Your task to perform on an android device: turn off smart reply in the gmail app Image 0: 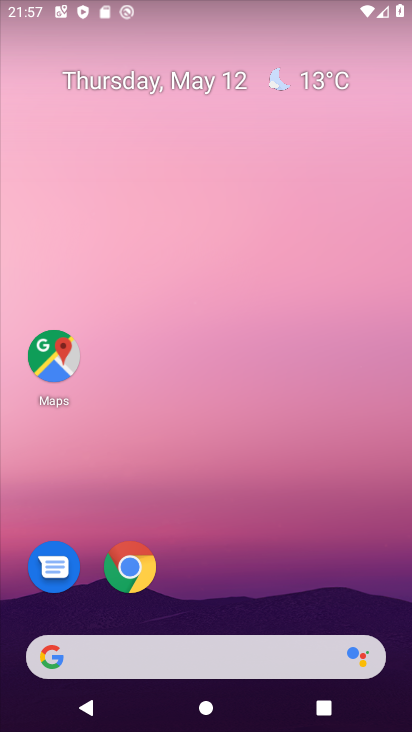
Step 0: drag from (249, 201) to (248, 41)
Your task to perform on an android device: turn off smart reply in the gmail app Image 1: 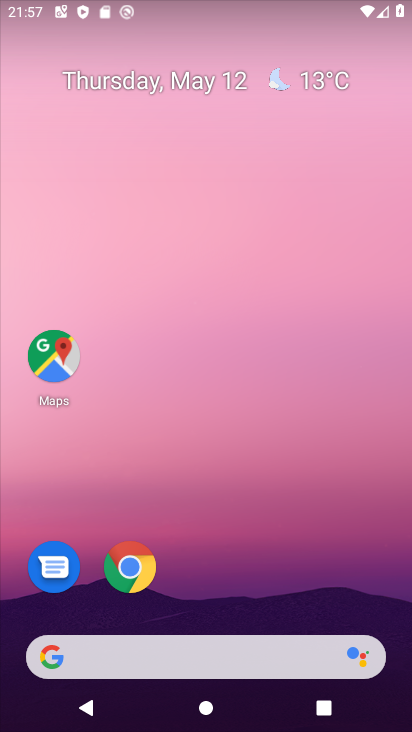
Step 1: drag from (216, 625) to (192, 2)
Your task to perform on an android device: turn off smart reply in the gmail app Image 2: 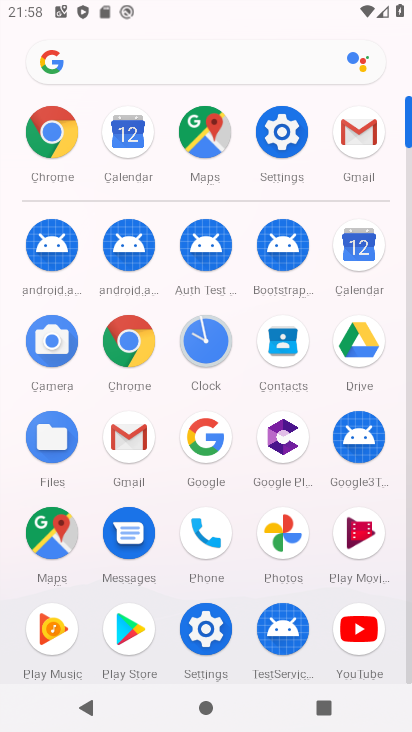
Step 2: click (125, 429)
Your task to perform on an android device: turn off smart reply in the gmail app Image 3: 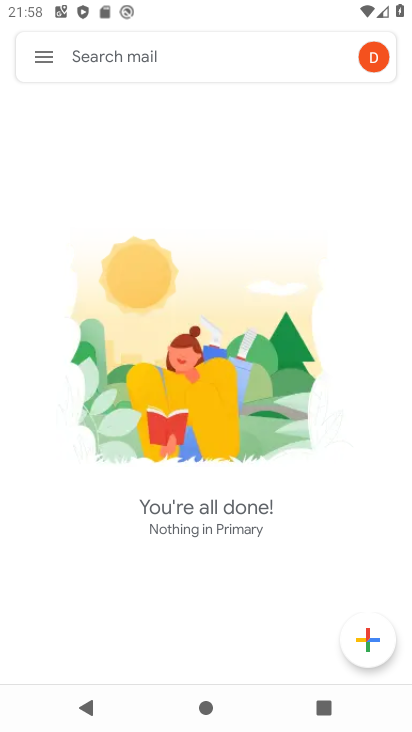
Step 3: click (36, 50)
Your task to perform on an android device: turn off smart reply in the gmail app Image 4: 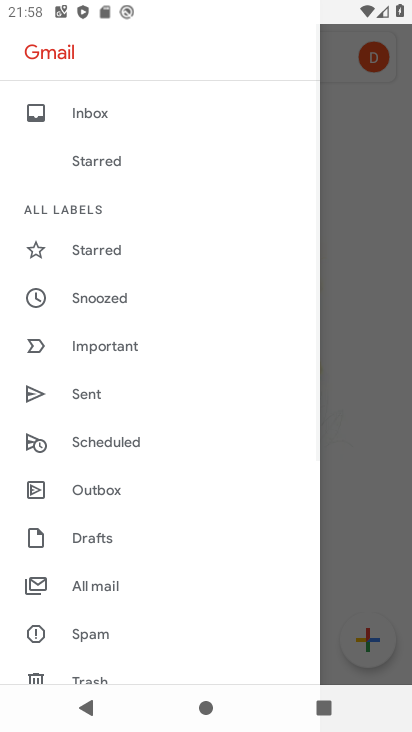
Step 4: drag from (129, 645) to (124, 64)
Your task to perform on an android device: turn off smart reply in the gmail app Image 5: 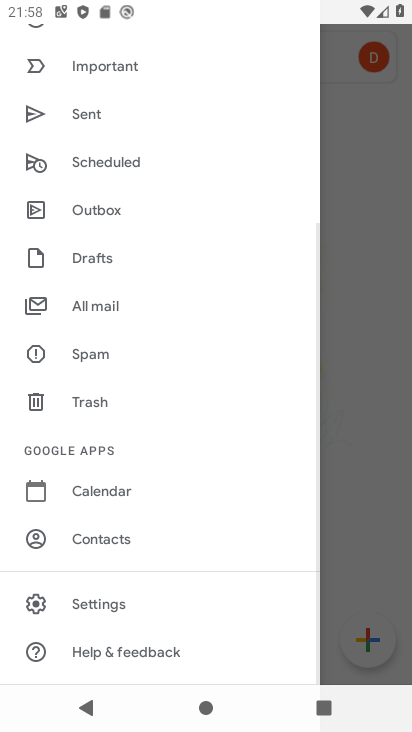
Step 5: click (140, 600)
Your task to perform on an android device: turn off smart reply in the gmail app Image 6: 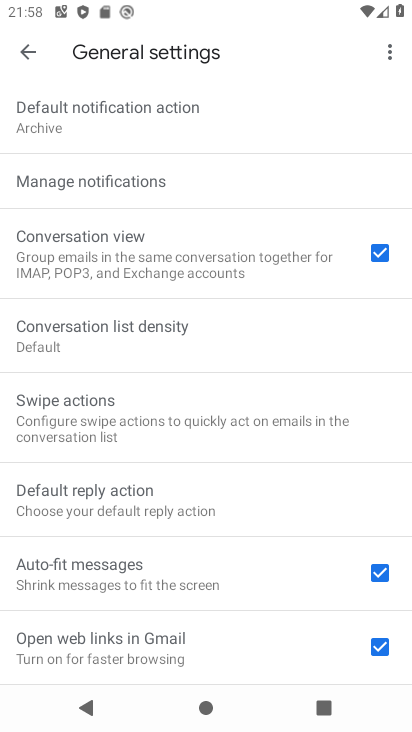
Step 6: drag from (204, 625) to (188, 71)
Your task to perform on an android device: turn off smart reply in the gmail app Image 7: 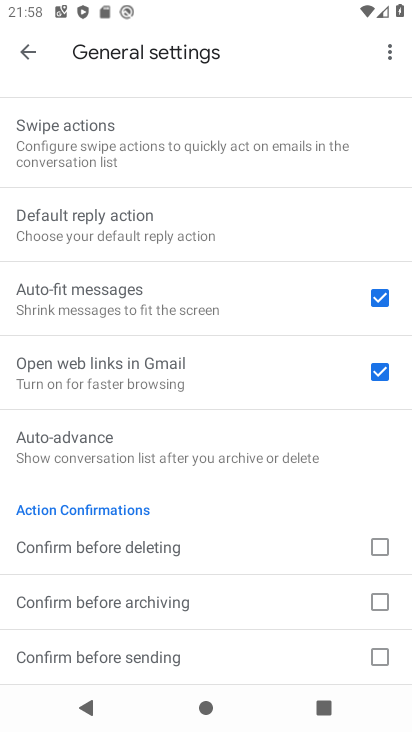
Step 7: click (31, 51)
Your task to perform on an android device: turn off smart reply in the gmail app Image 8: 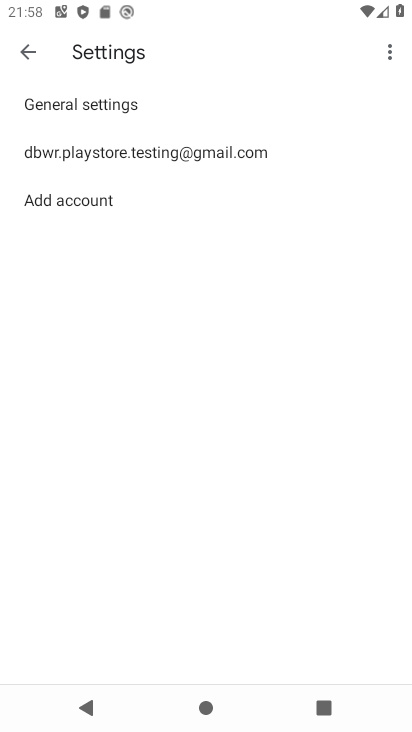
Step 8: click (270, 149)
Your task to perform on an android device: turn off smart reply in the gmail app Image 9: 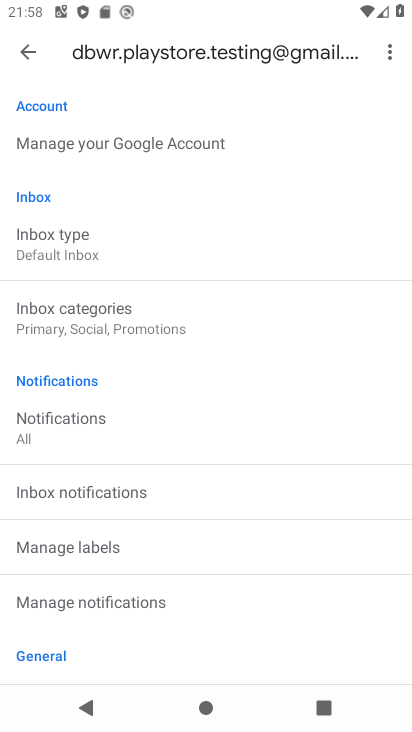
Step 9: task complete